Your task to perform on an android device: toggle show notifications on the lock screen Image 0: 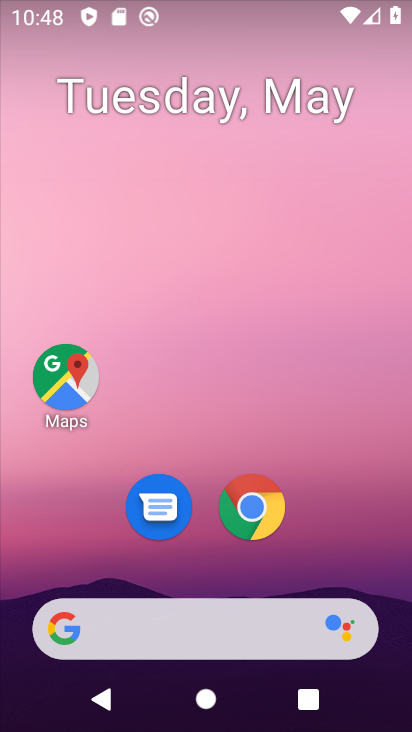
Step 0: drag from (229, 598) to (155, 81)
Your task to perform on an android device: toggle show notifications on the lock screen Image 1: 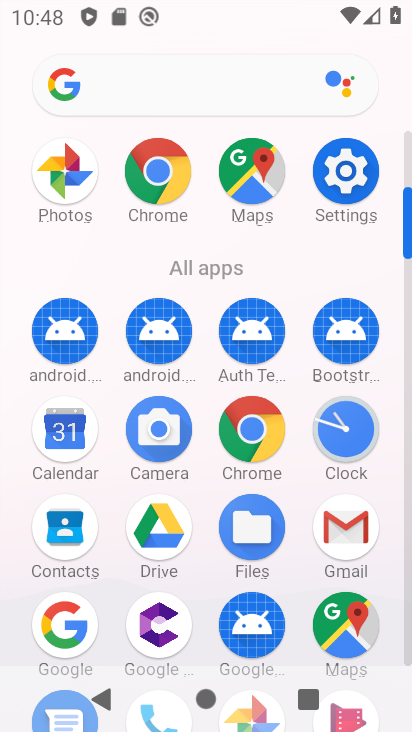
Step 1: click (334, 188)
Your task to perform on an android device: toggle show notifications on the lock screen Image 2: 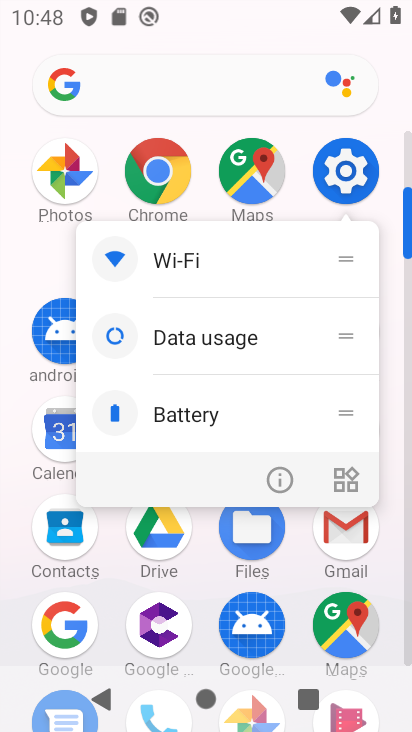
Step 2: click (302, 182)
Your task to perform on an android device: toggle show notifications on the lock screen Image 3: 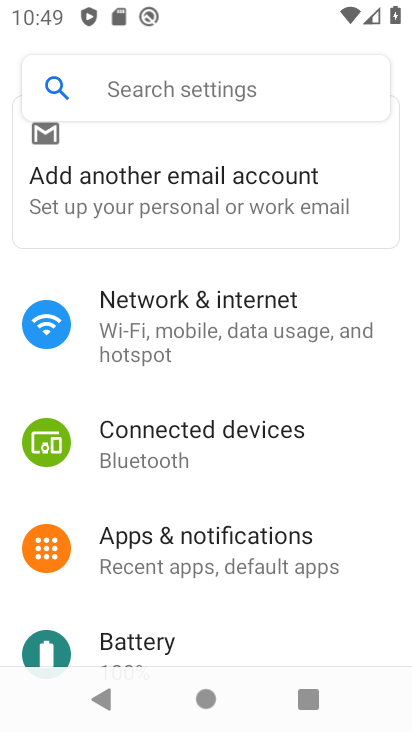
Step 3: click (191, 547)
Your task to perform on an android device: toggle show notifications on the lock screen Image 4: 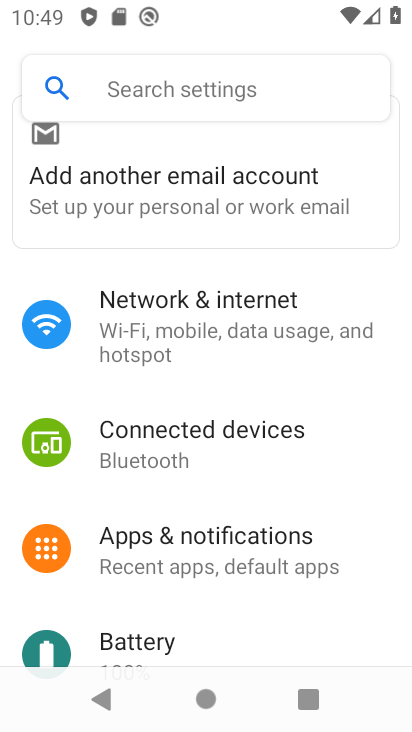
Step 4: click (191, 547)
Your task to perform on an android device: toggle show notifications on the lock screen Image 5: 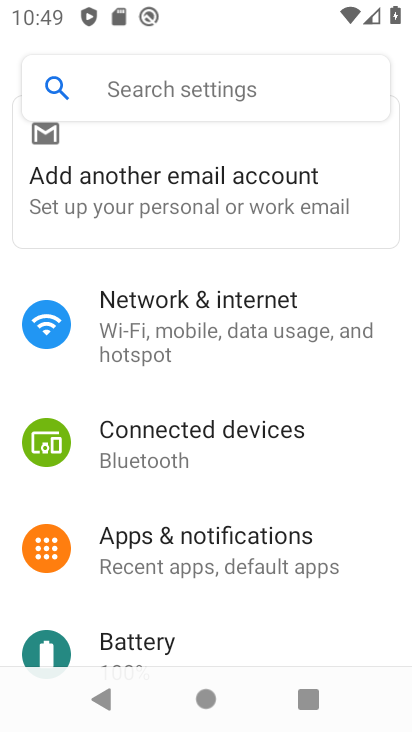
Step 5: click (191, 547)
Your task to perform on an android device: toggle show notifications on the lock screen Image 6: 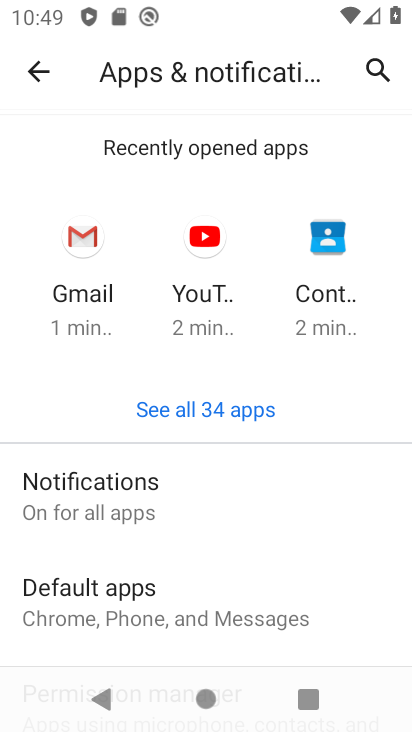
Step 6: click (105, 498)
Your task to perform on an android device: toggle show notifications on the lock screen Image 7: 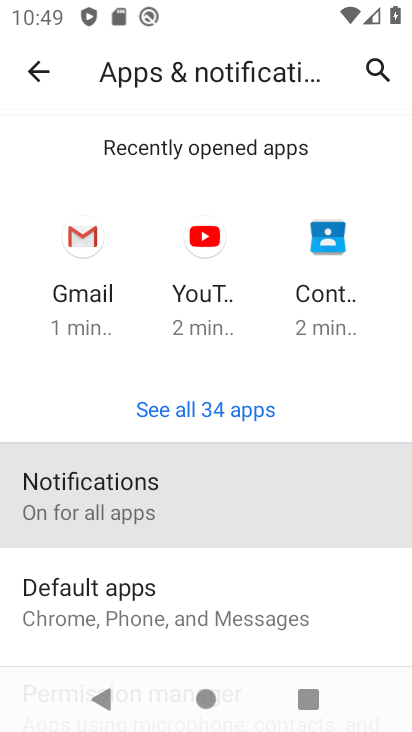
Step 7: click (103, 498)
Your task to perform on an android device: toggle show notifications on the lock screen Image 8: 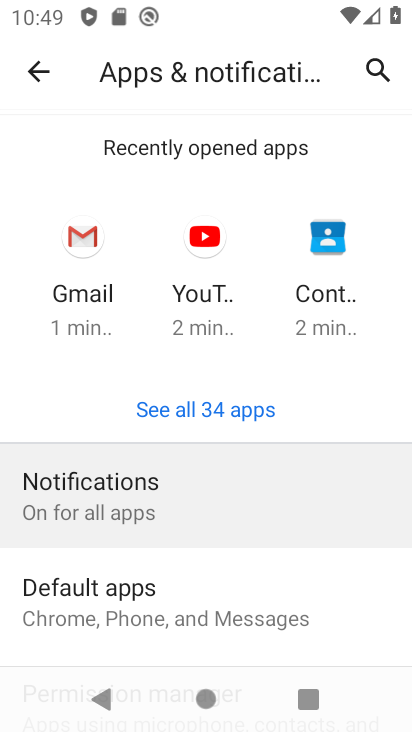
Step 8: click (103, 498)
Your task to perform on an android device: toggle show notifications on the lock screen Image 9: 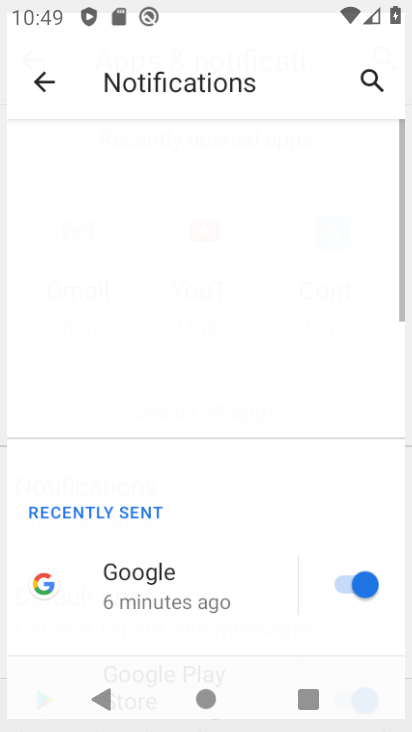
Step 9: click (99, 492)
Your task to perform on an android device: toggle show notifications on the lock screen Image 10: 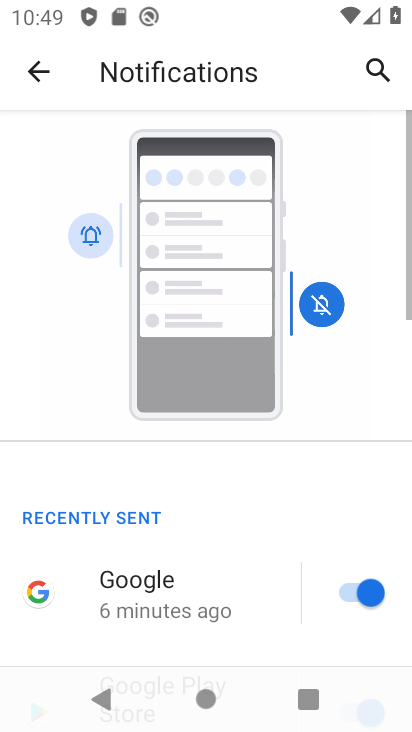
Step 10: click (98, 490)
Your task to perform on an android device: toggle show notifications on the lock screen Image 11: 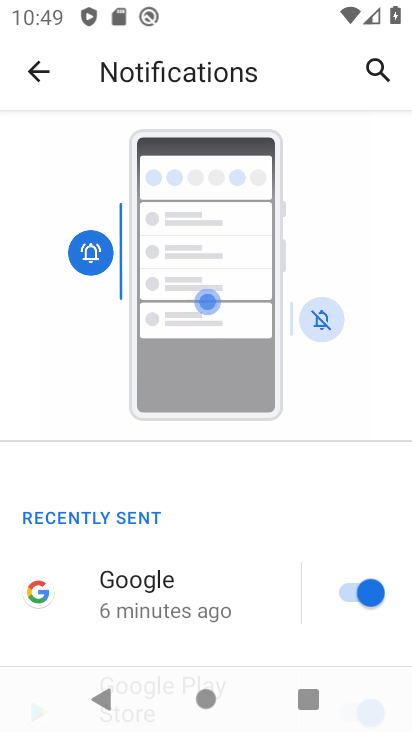
Step 11: task complete